Your task to perform on an android device: Open Youtube and go to "Your channel" Image 0: 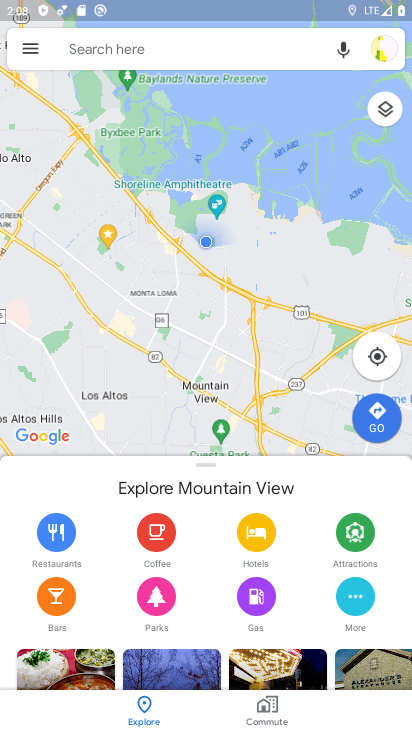
Step 0: press home button
Your task to perform on an android device: Open Youtube and go to "Your channel" Image 1: 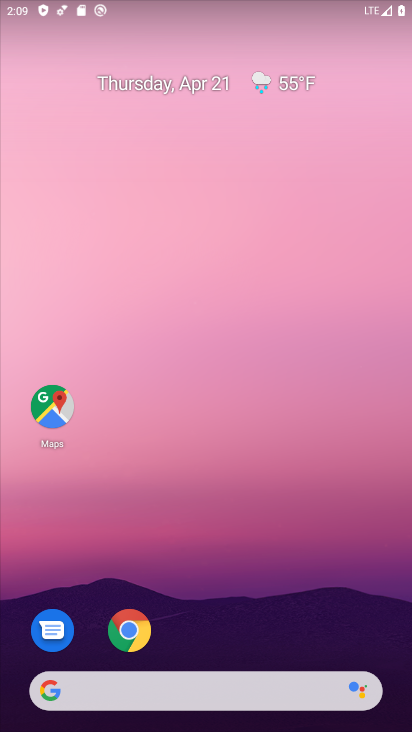
Step 1: drag from (266, 610) to (310, 142)
Your task to perform on an android device: Open Youtube and go to "Your channel" Image 2: 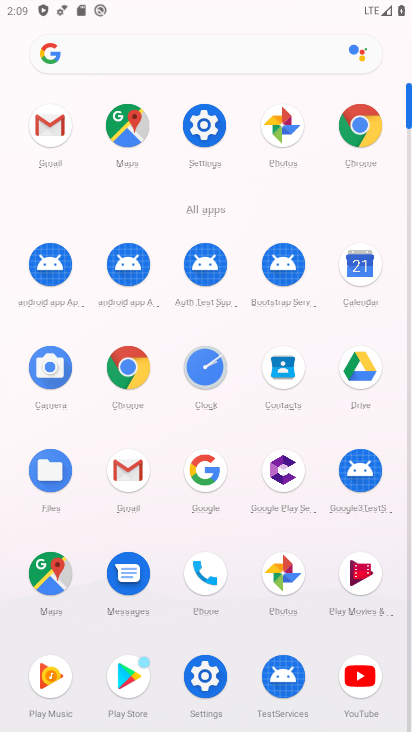
Step 2: click (368, 682)
Your task to perform on an android device: Open Youtube and go to "Your channel" Image 3: 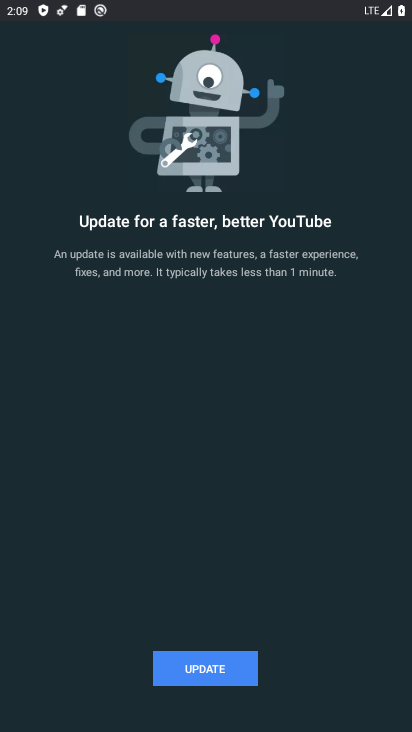
Step 3: click (214, 677)
Your task to perform on an android device: Open Youtube and go to "Your channel" Image 4: 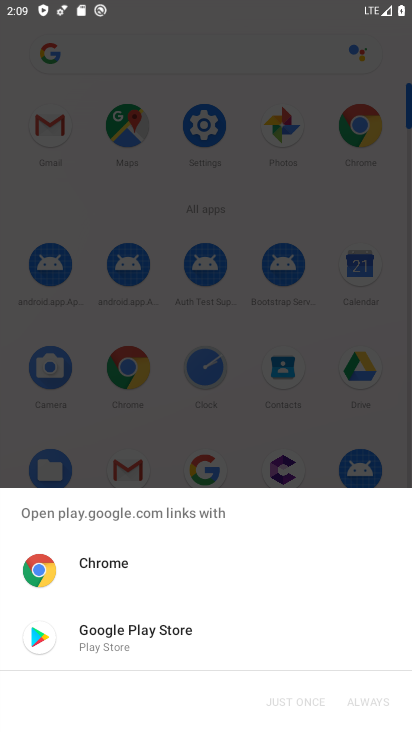
Step 4: click (113, 636)
Your task to perform on an android device: Open Youtube and go to "Your channel" Image 5: 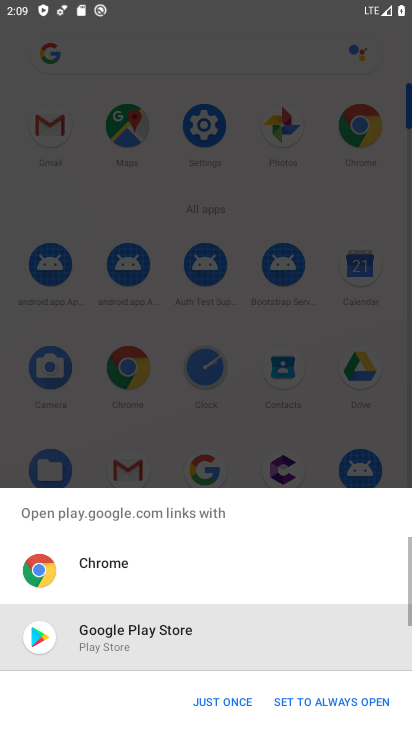
Step 5: click (247, 706)
Your task to perform on an android device: Open Youtube and go to "Your channel" Image 6: 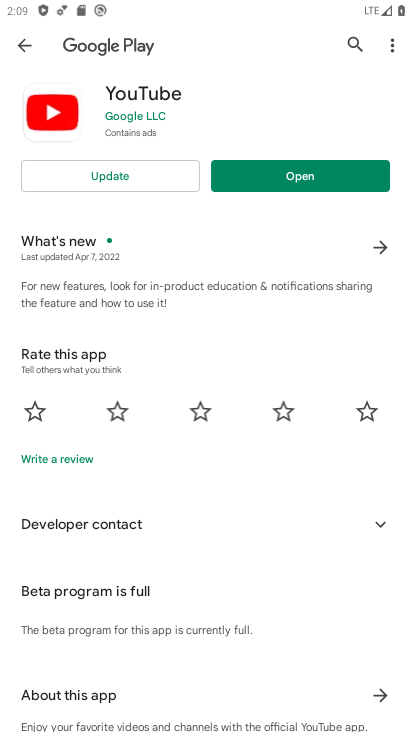
Step 6: drag from (259, 181) to (187, 335)
Your task to perform on an android device: Open Youtube and go to "Your channel" Image 7: 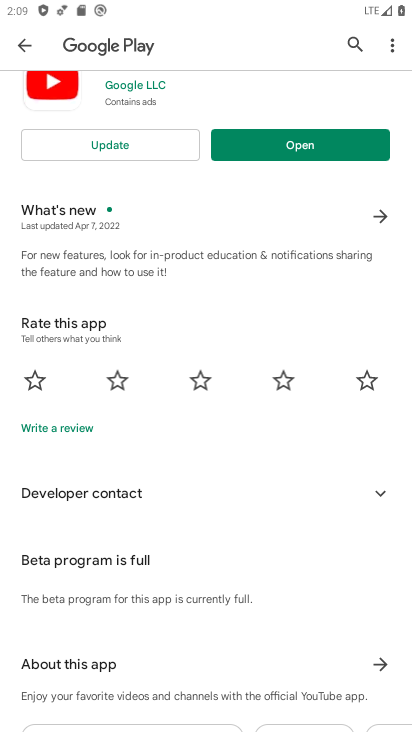
Step 7: click (130, 156)
Your task to perform on an android device: Open Youtube and go to "Your channel" Image 8: 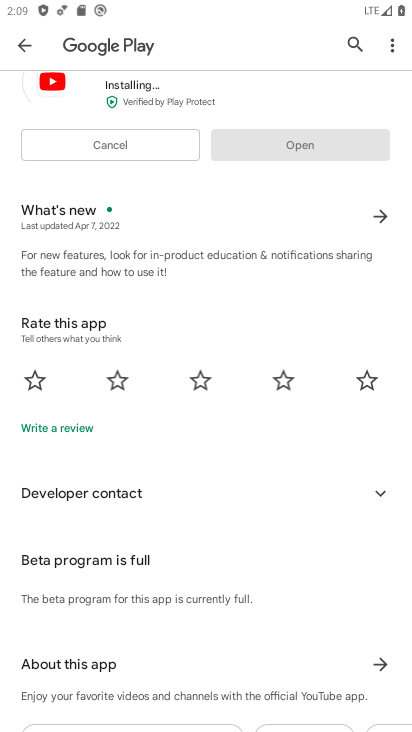
Step 8: drag from (217, 236) to (198, 546)
Your task to perform on an android device: Open Youtube and go to "Your channel" Image 9: 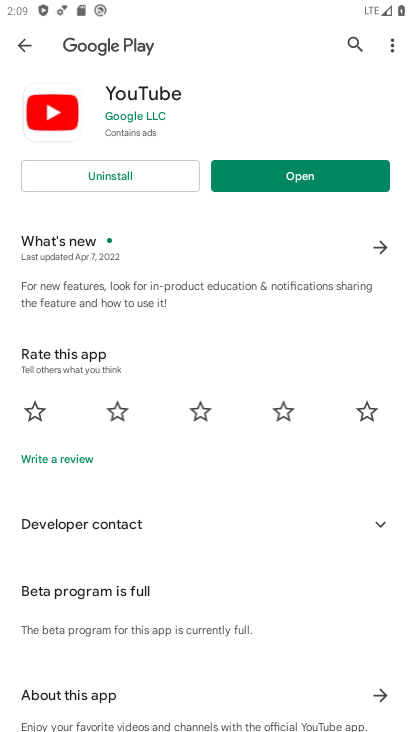
Step 9: click (292, 174)
Your task to perform on an android device: Open Youtube and go to "Your channel" Image 10: 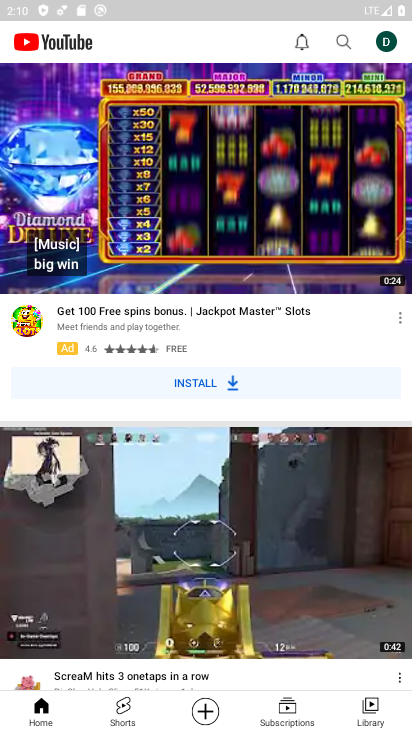
Step 10: click (369, 709)
Your task to perform on an android device: Open Youtube and go to "Your channel" Image 11: 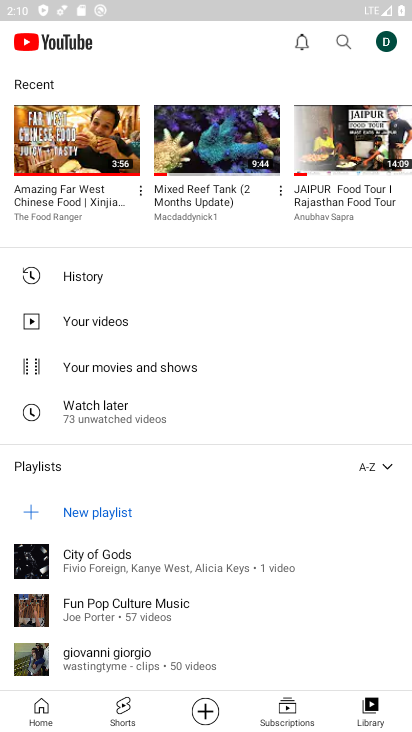
Step 11: task complete